Your task to perform on an android device: Is it going to rain today? Image 0: 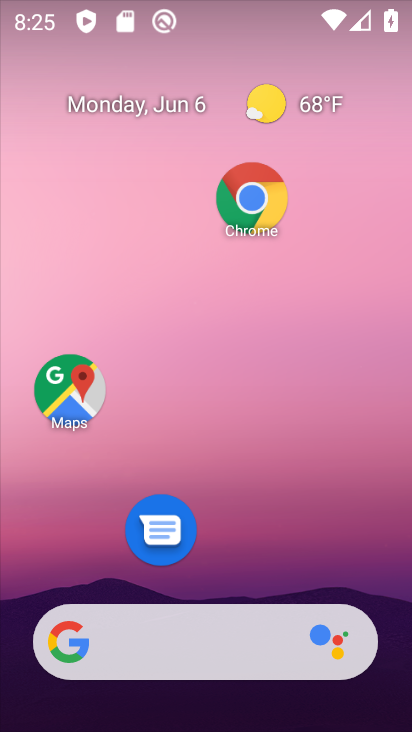
Step 0: drag from (227, 565) to (230, 119)
Your task to perform on an android device: Is it going to rain today? Image 1: 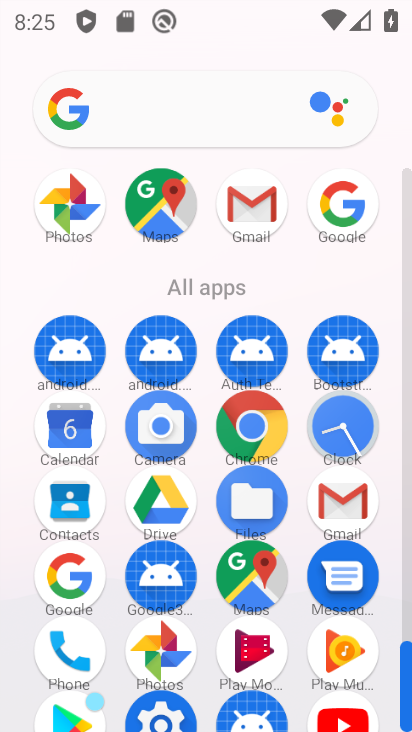
Step 1: click (79, 570)
Your task to perform on an android device: Is it going to rain today? Image 2: 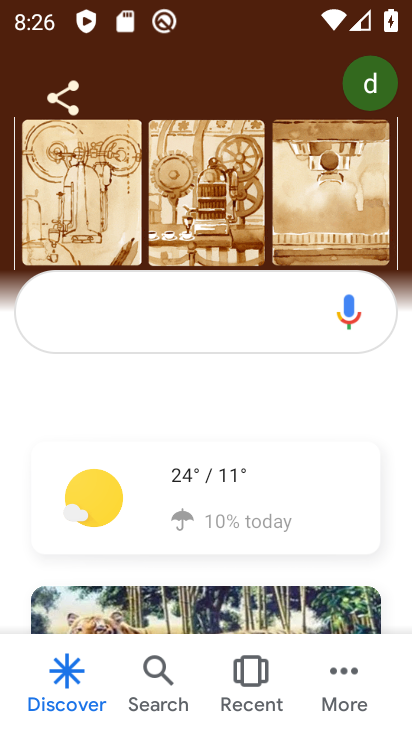
Step 2: drag from (220, 469) to (243, 328)
Your task to perform on an android device: Is it going to rain today? Image 3: 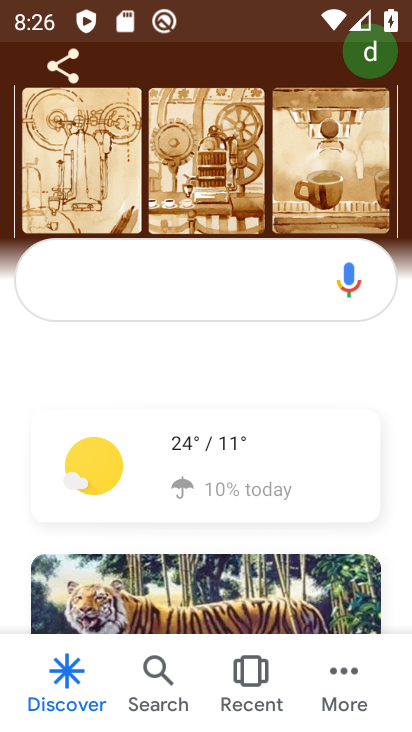
Step 3: click (225, 455)
Your task to perform on an android device: Is it going to rain today? Image 4: 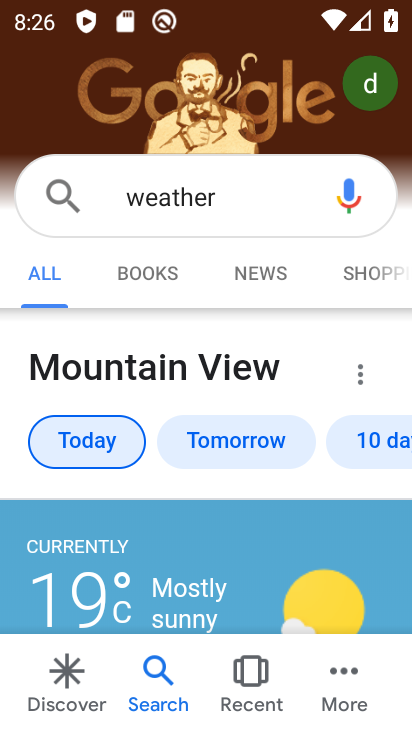
Step 4: task complete